Your task to perform on an android device: Go to Reddit.com Image 0: 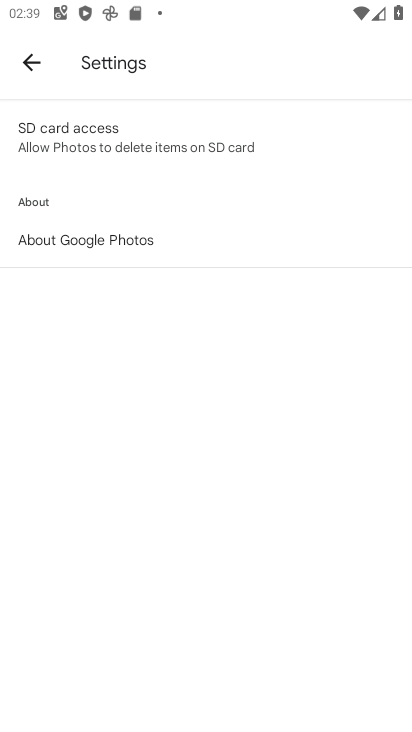
Step 0: press home button
Your task to perform on an android device: Go to Reddit.com Image 1: 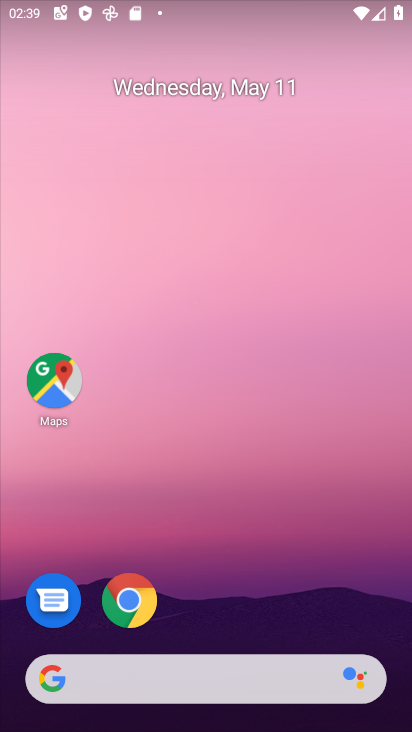
Step 1: click (230, 682)
Your task to perform on an android device: Go to Reddit.com Image 2: 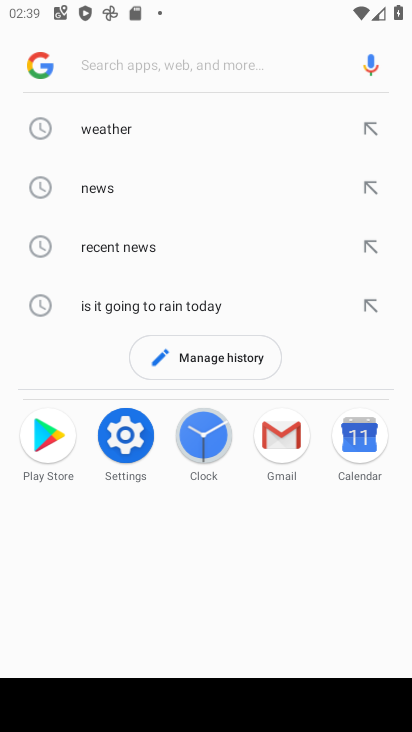
Step 2: type "reddit.com"
Your task to perform on an android device: Go to Reddit.com Image 3: 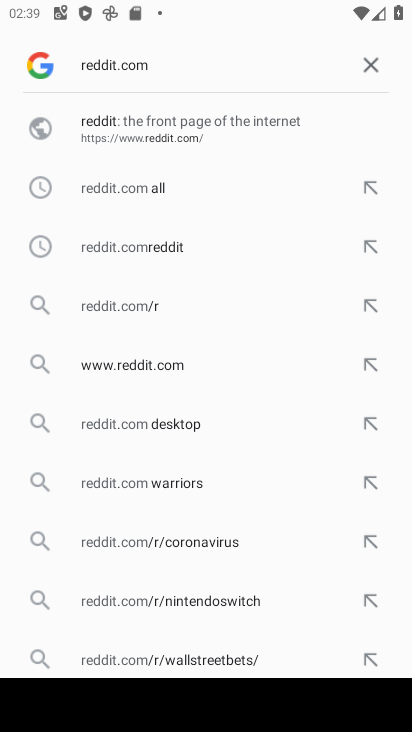
Step 3: click (275, 120)
Your task to perform on an android device: Go to Reddit.com Image 4: 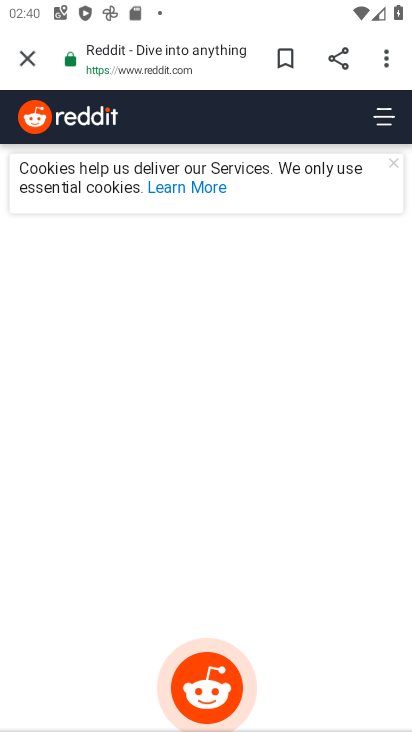
Step 4: task complete